Your task to perform on an android device: open a bookmark in the chrome app Image 0: 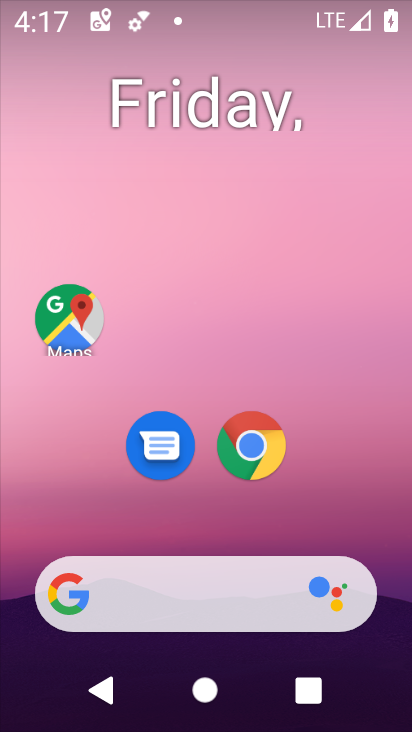
Step 0: click (273, 452)
Your task to perform on an android device: open a bookmark in the chrome app Image 1: 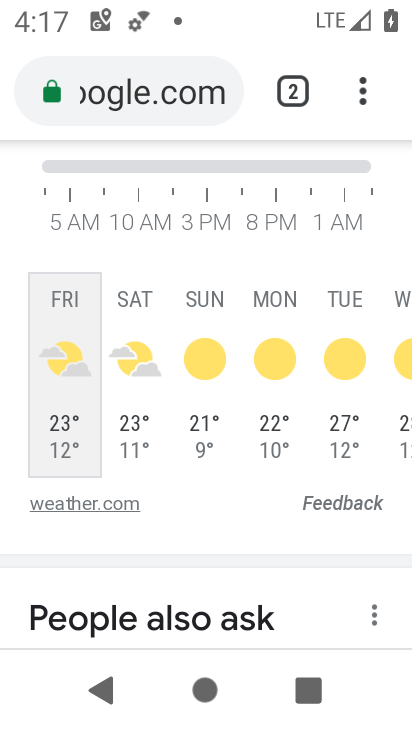
Step 1: click (367, 103)
Your task to perform on an android device: open a bookmark in the chrome app Image 2: 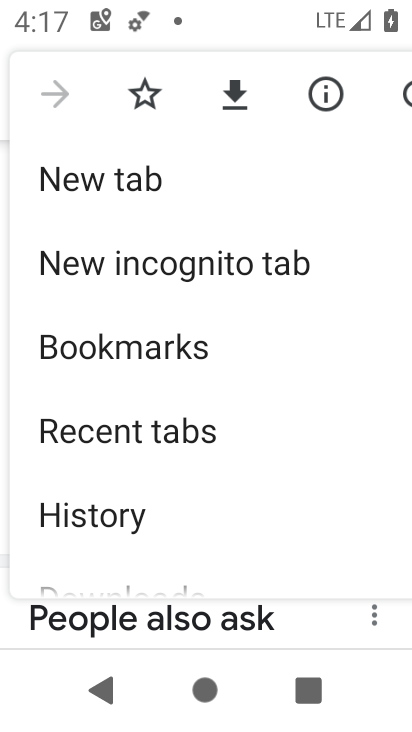
Step 2: click (167, 346)
Your task to perform on an android device: open a bookmark in the chrome app Image 3: 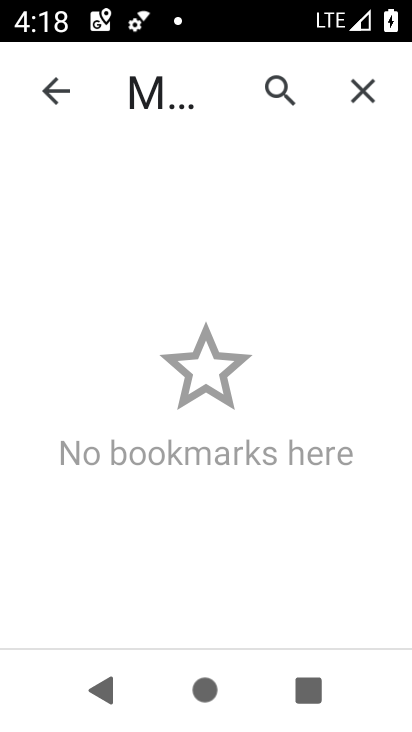
Step 3: task complete